Your task to perform on an android device: open app "DuckDuckGo Privacy Browser" (install if not already installed) and go to login screen Image 0: 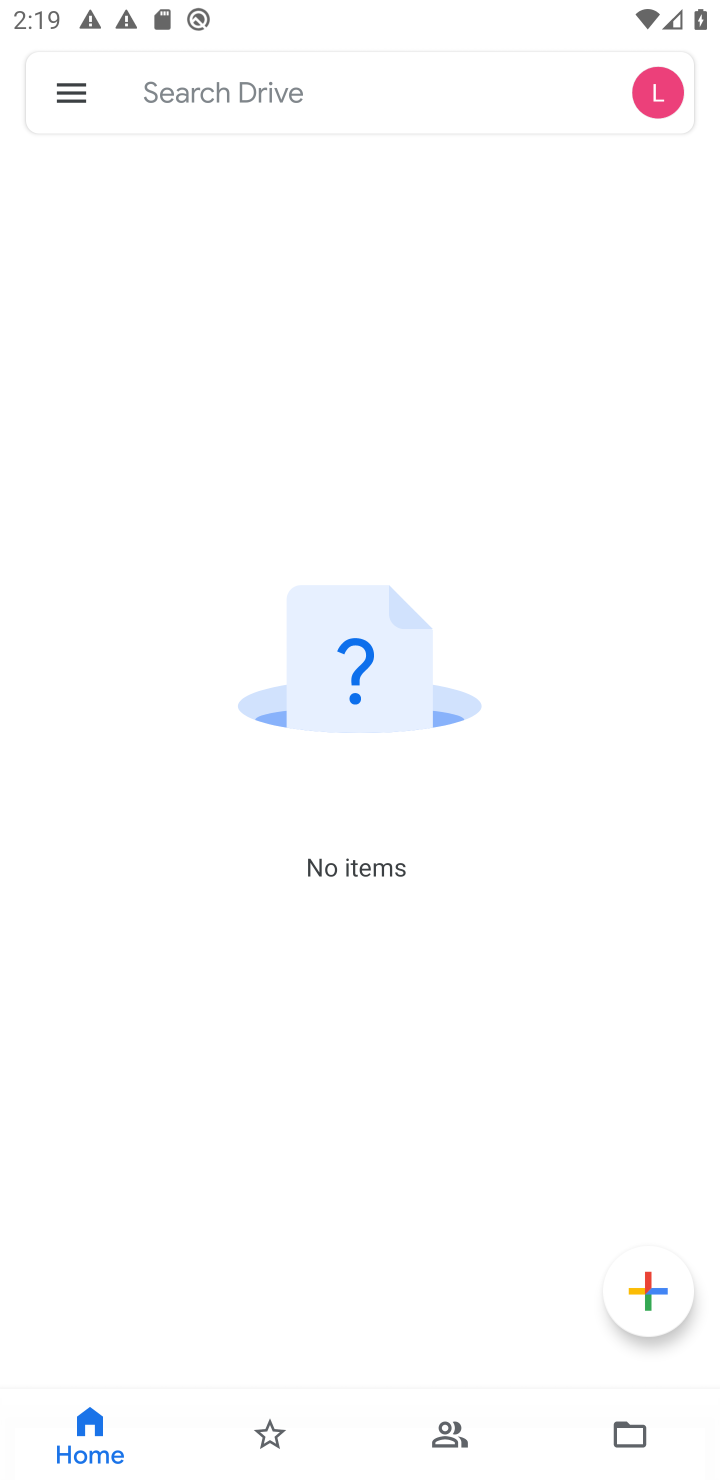
Step 0: press home button
Your task to perform on an android device: open app "DuckDuckGo Privacy Browser" (install if not already installed) and go to login screen Image 1: 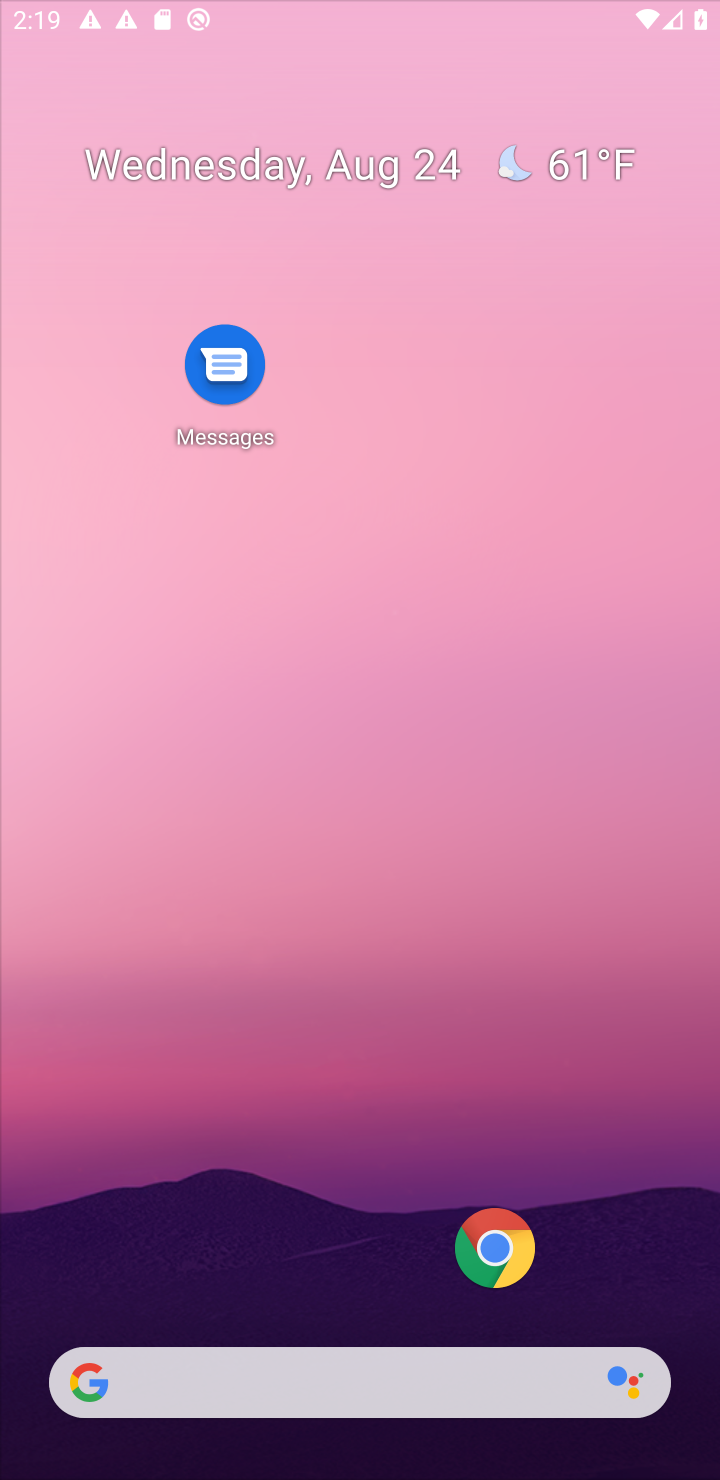
Step 1: drag from (368, 1342) to (467, 461)
Your task to perform on an android device: open app "DuckDuckGo Privacy Browser" (install if not already installed) and go to login screen Image 2: 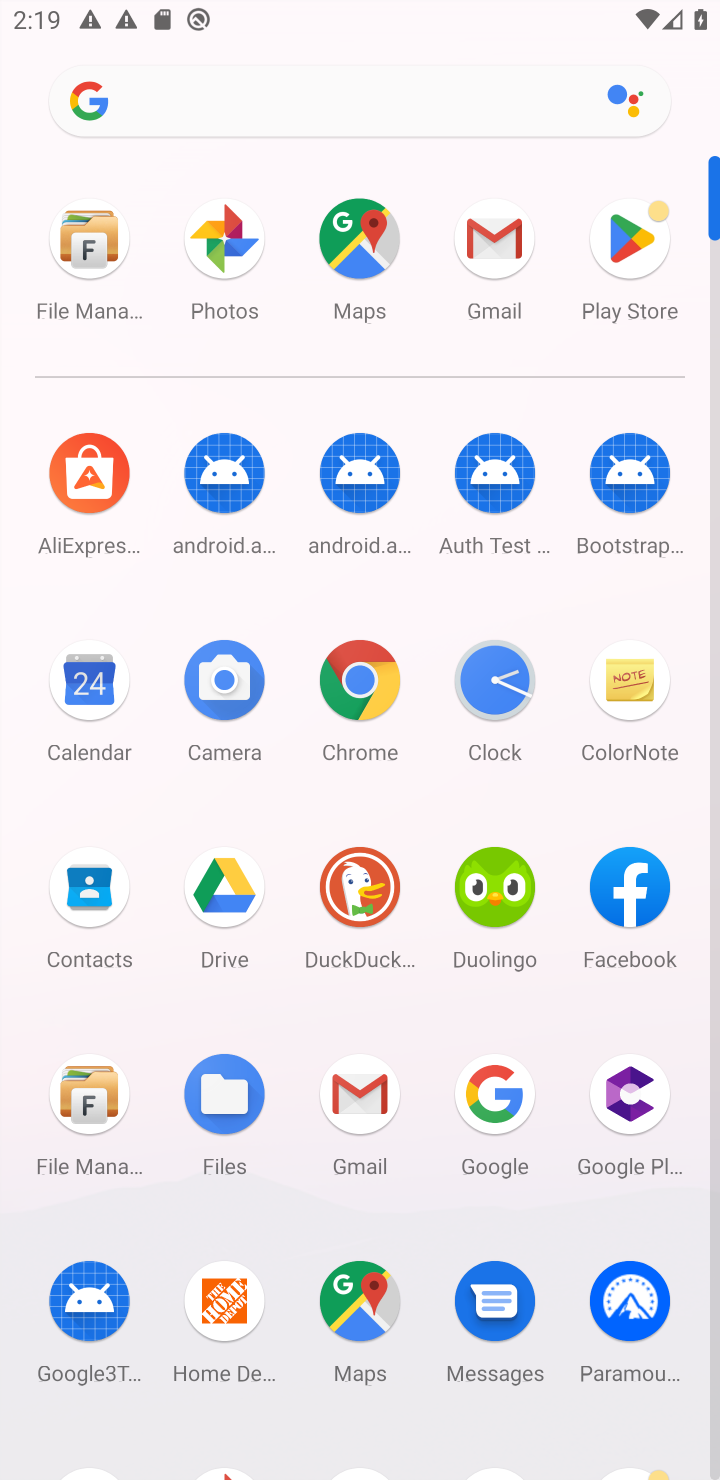
Step 2: drag from (230, 1375) to (249, 1254)
Your task to perform on an android device: open app "DuckDuckGo Privacy Browser" (install if not already installed) and go to login screen Image 3: 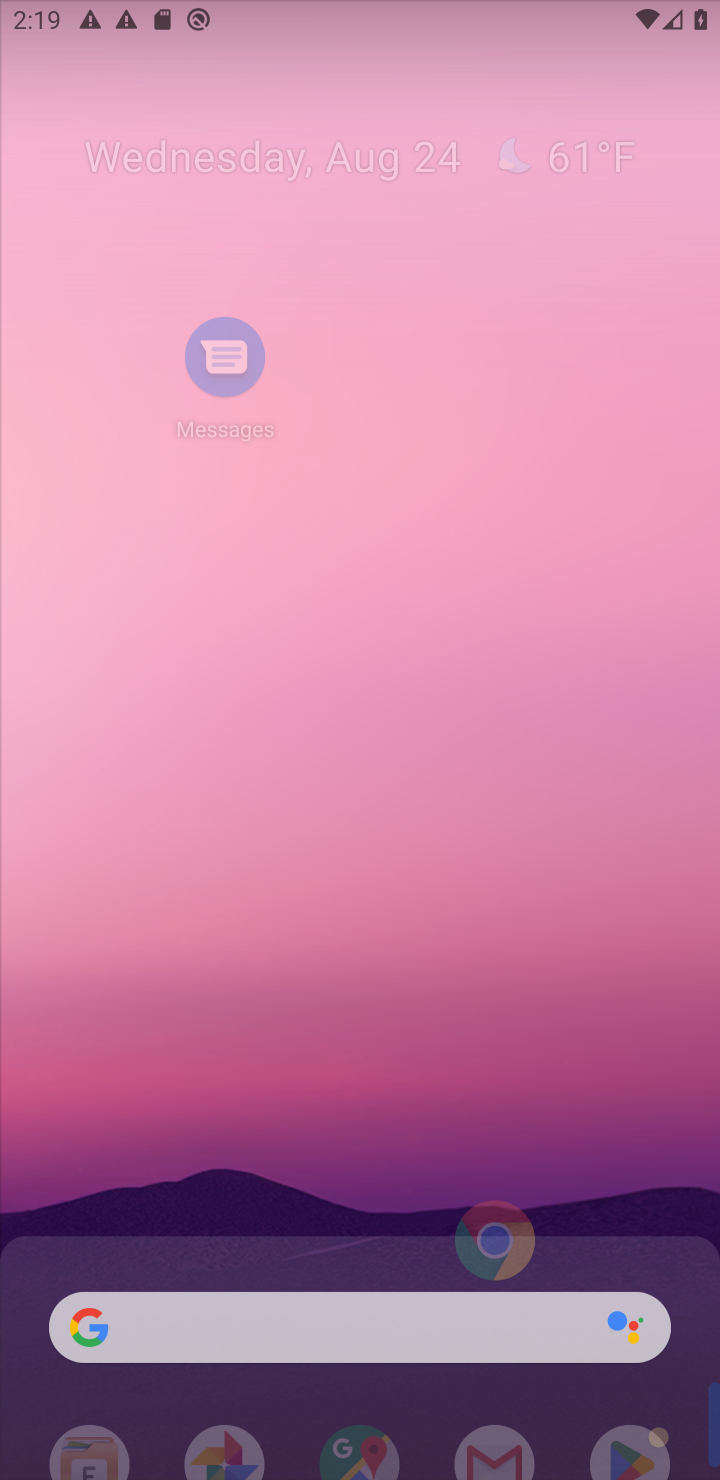
Step 3: click (638, 215)
Your task to perform on an android device: open app "DuckDuckGo Privacy Browser" (install if not already installed) and go to login screen Image 4: 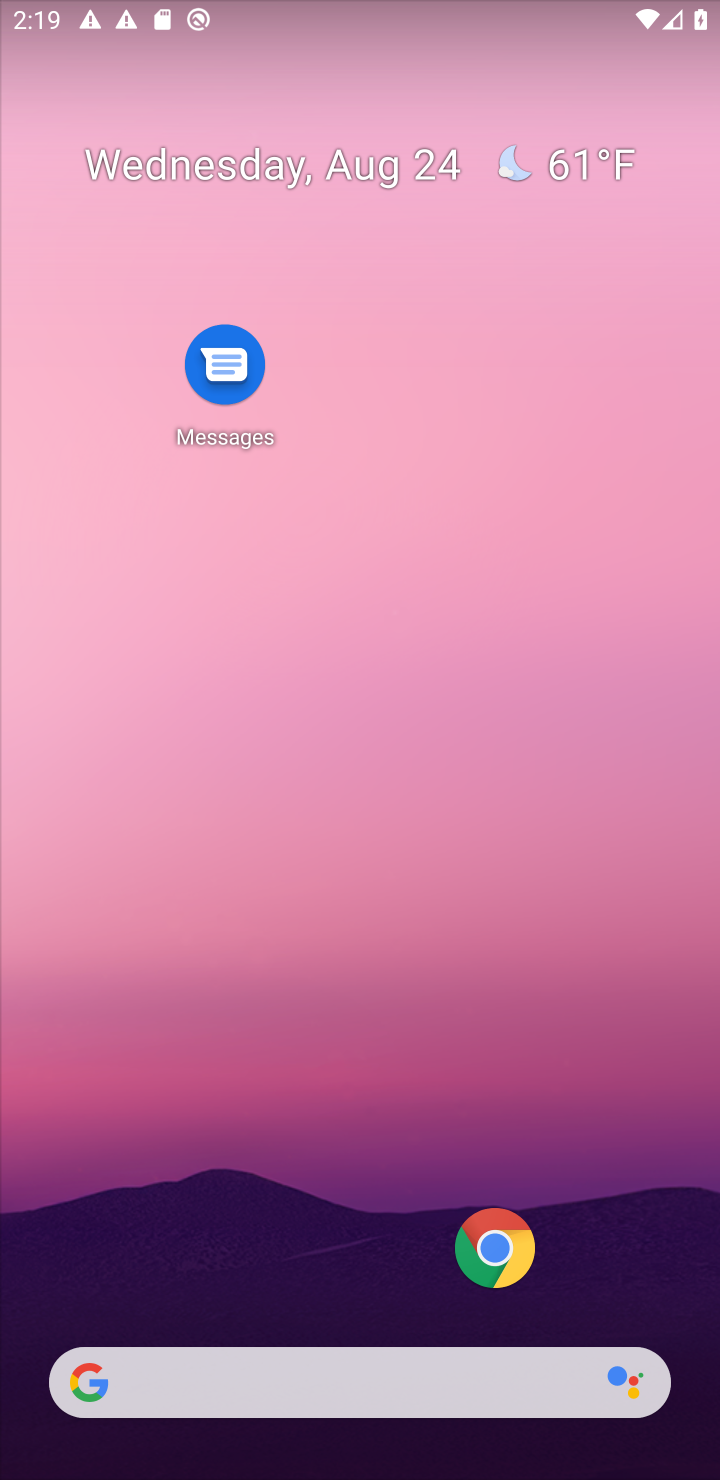
Step 4: drag from (335, 1182) to (368, 694)
Your task to perform on an android device: open app "DuckDuckGo Privacy Browser" (install if not already installed) and go to login screen Image 5: 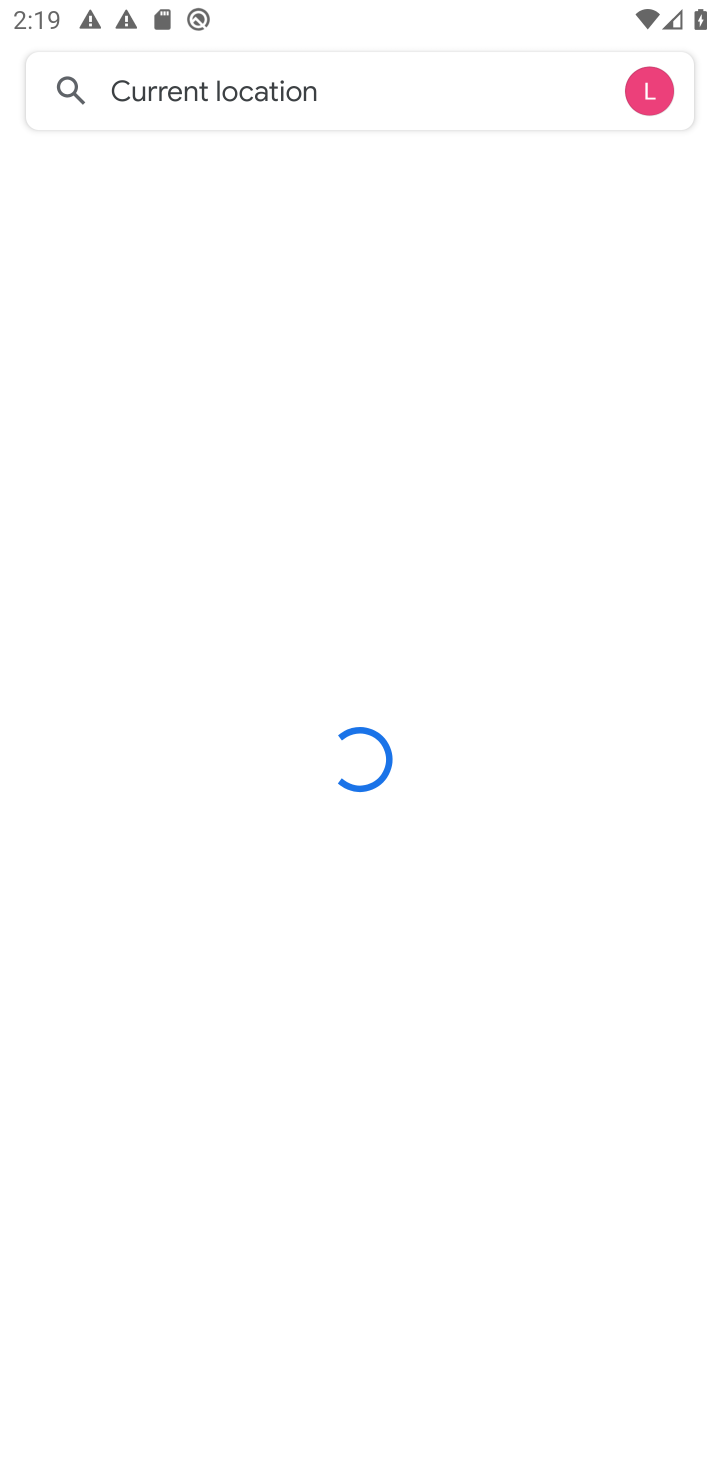
Step 5: press home button
Your task to perform on an android device: open app "DuckDuckGo Privacy Browser" (install if not already installed) and go to login screen Image 6: 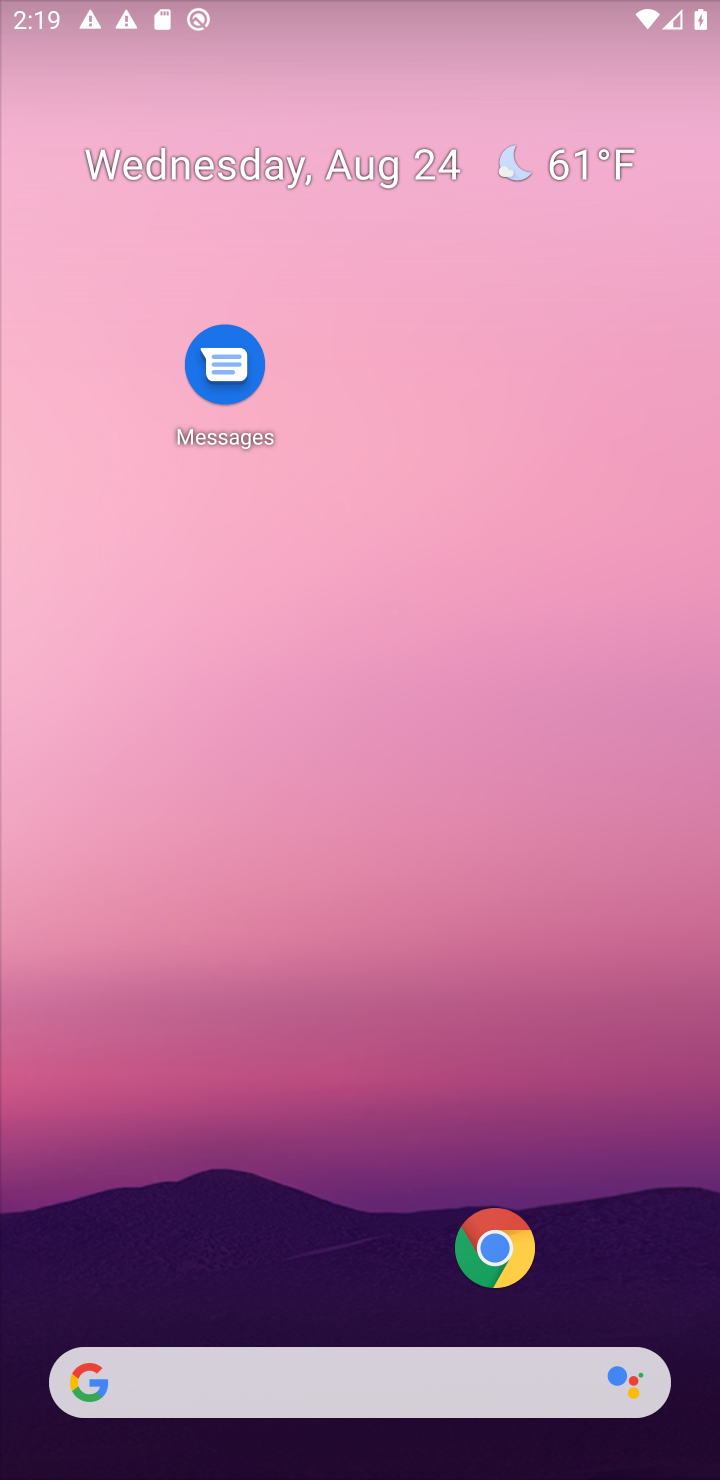
Step 6: press home button
Your task to perform on an android device: open app "DuckDuckGo Privacy Browser" (install if not already installed) and go to login screen Image 7: 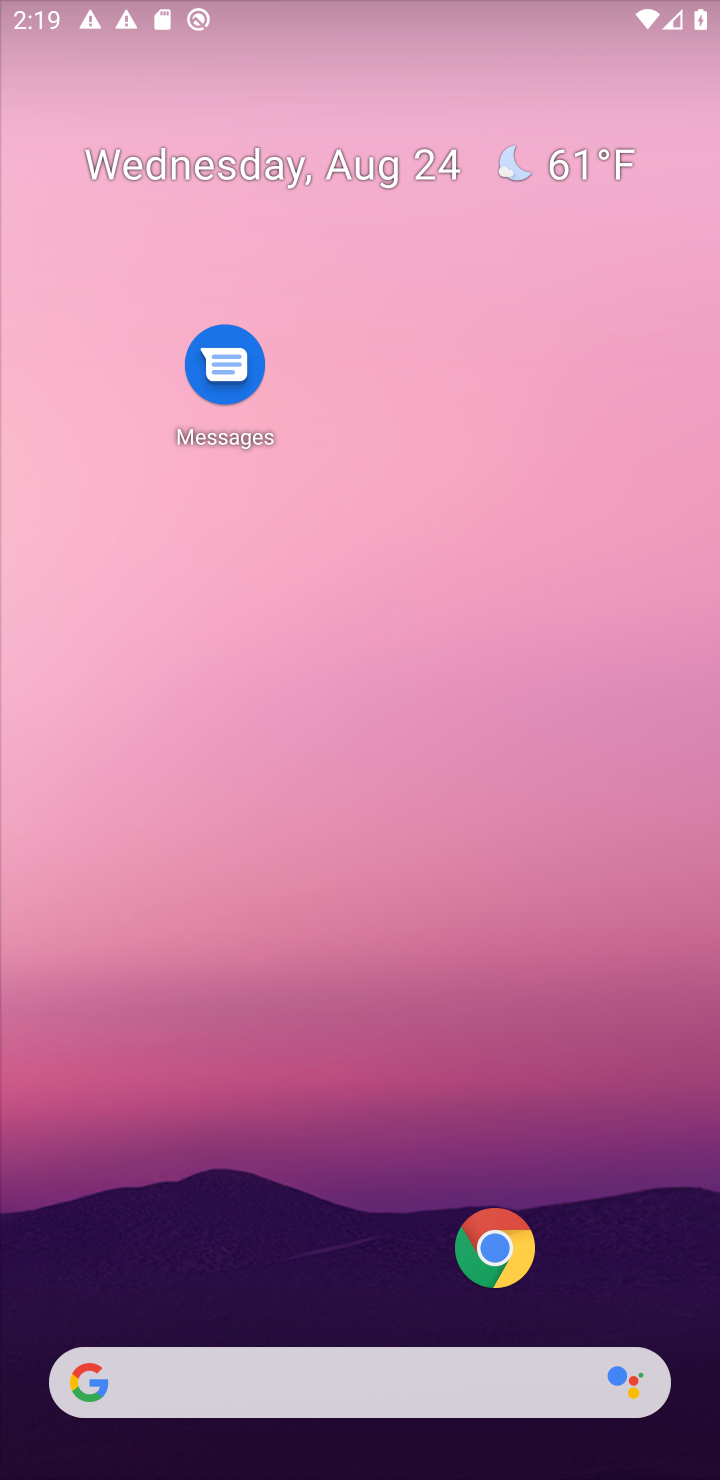
Step 7: click (309, 252)
Your task to perform on an android device: open app "DuckDuckGo Privacy Browser" (install if not already installed) and go to login screen Image 8: 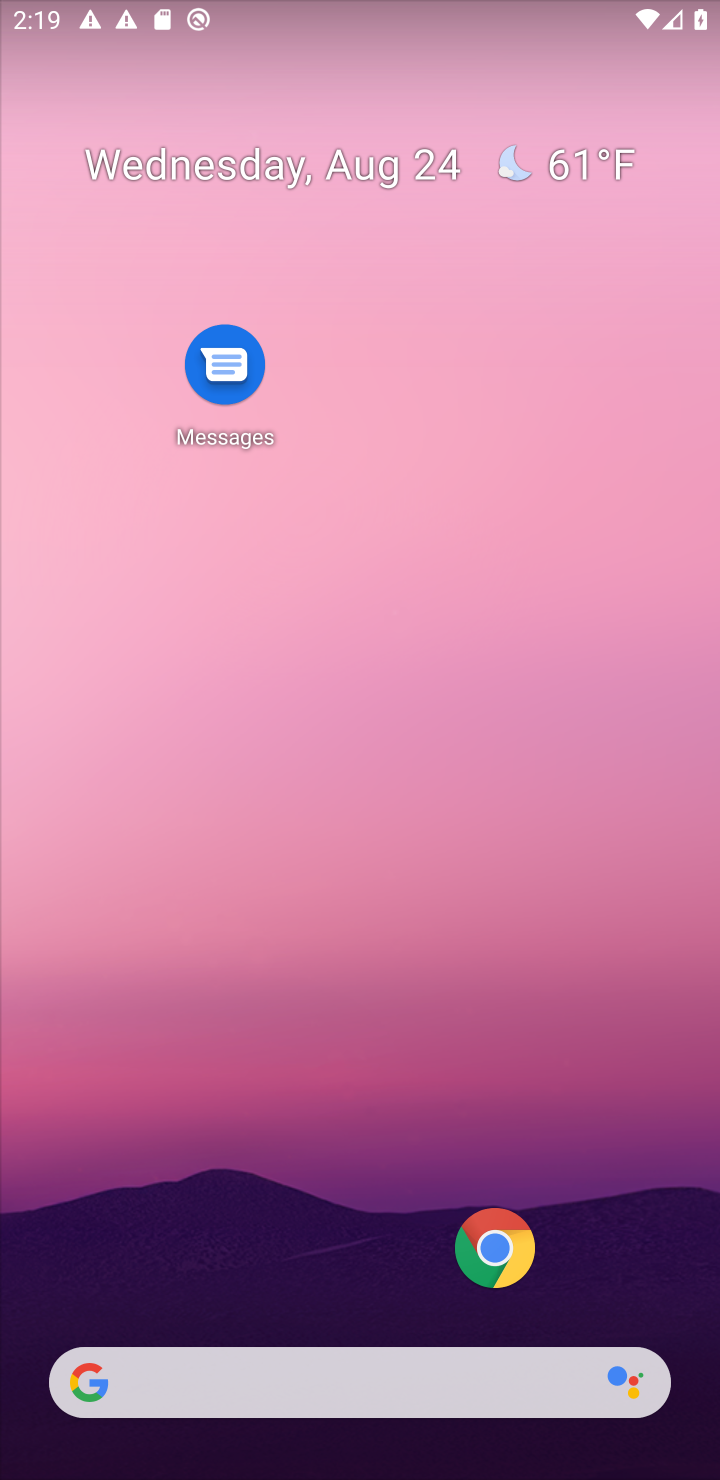
Step 8: drag from (423, 1077) to (443, 255)
Your task to perform on an android device: open app "DuckDuckGo Privacy Browser" (install if not already installed) and go to login screen Image 9: 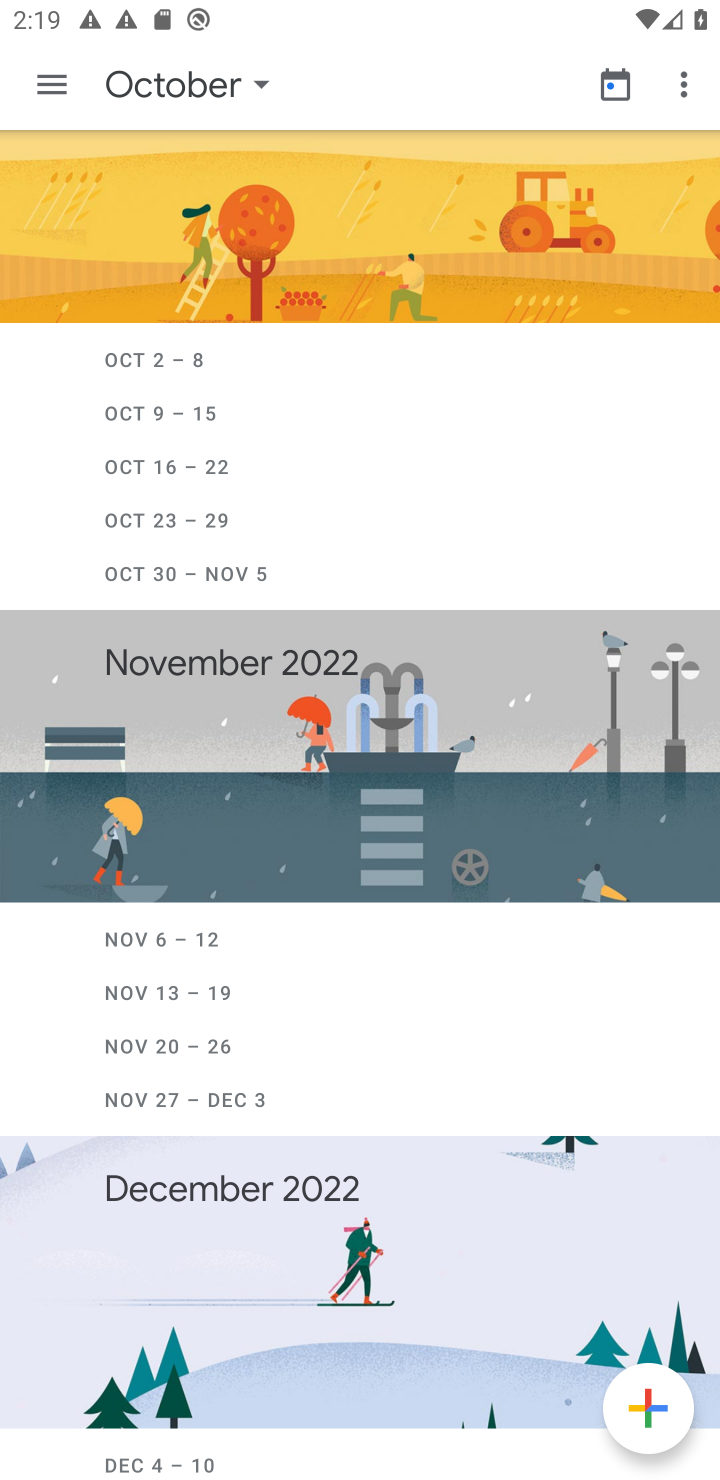
Step 9: press home button
Your task to perform on an android device: open app "DuckDuckGo Privacy Browser" (install if not already installed) and go to login screen Image 10: 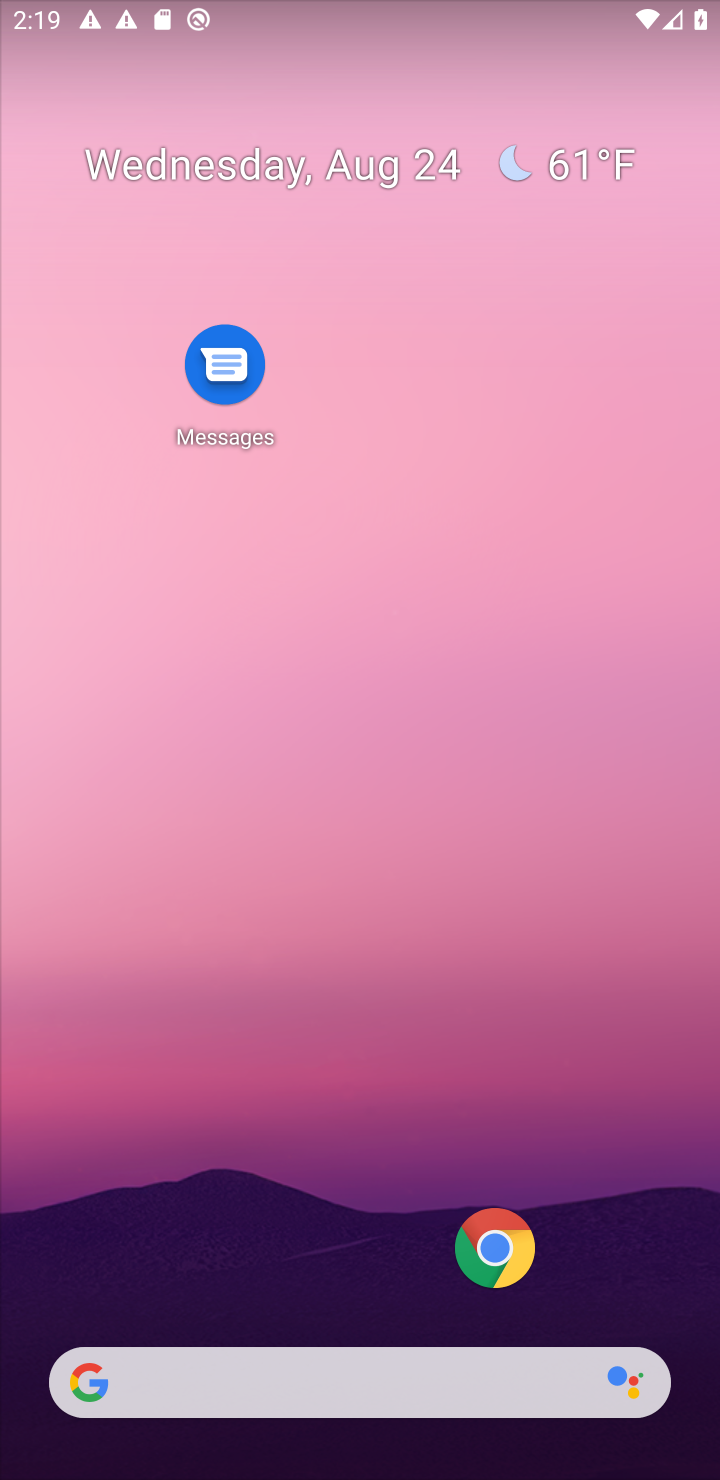
Step 10: drag from (229, 1291) to (245, 385)
Your task to perform on an android device: open app "DuckDuckGo Privacy Browser" (install if not already installed) and go to login screen Image 11: 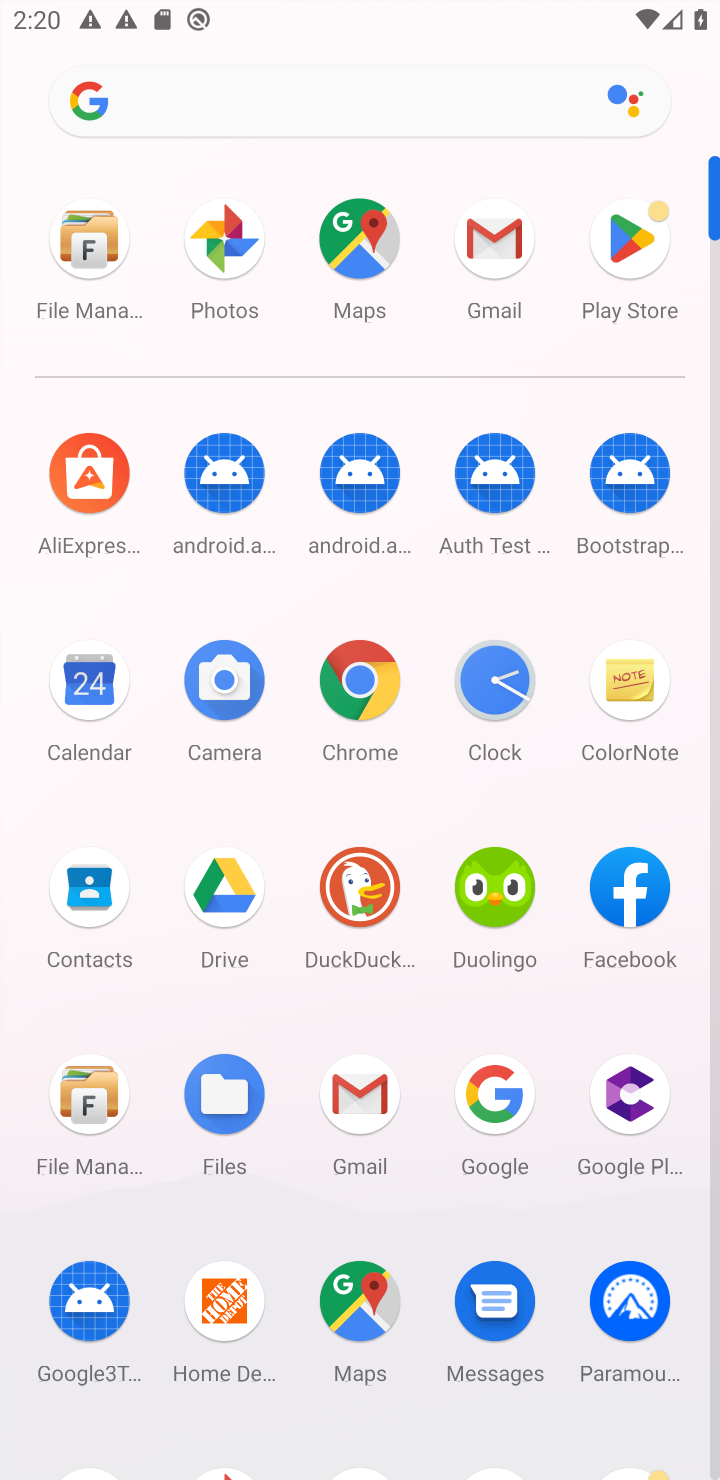
Step 11: click (617, 230)
Your task to perform on an android device: open app "DuckDuckGo Privacy Browser" (install if not already installed) and go to login screen Image 12: 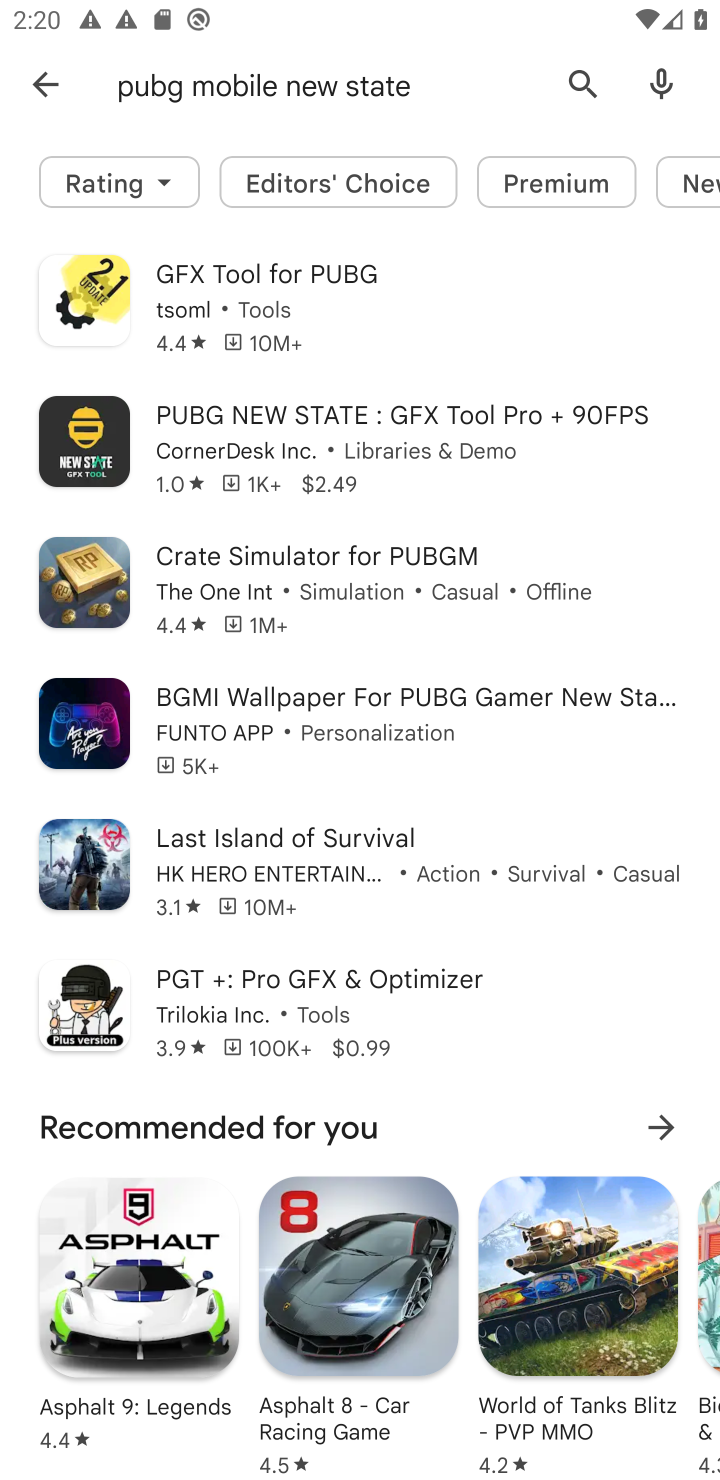
Step 12: click (54, 93)
Your task to perform on an android device: open app "DuckDuckGo Privacy Browser" (install if not already installed) and go to login screen Image 13: 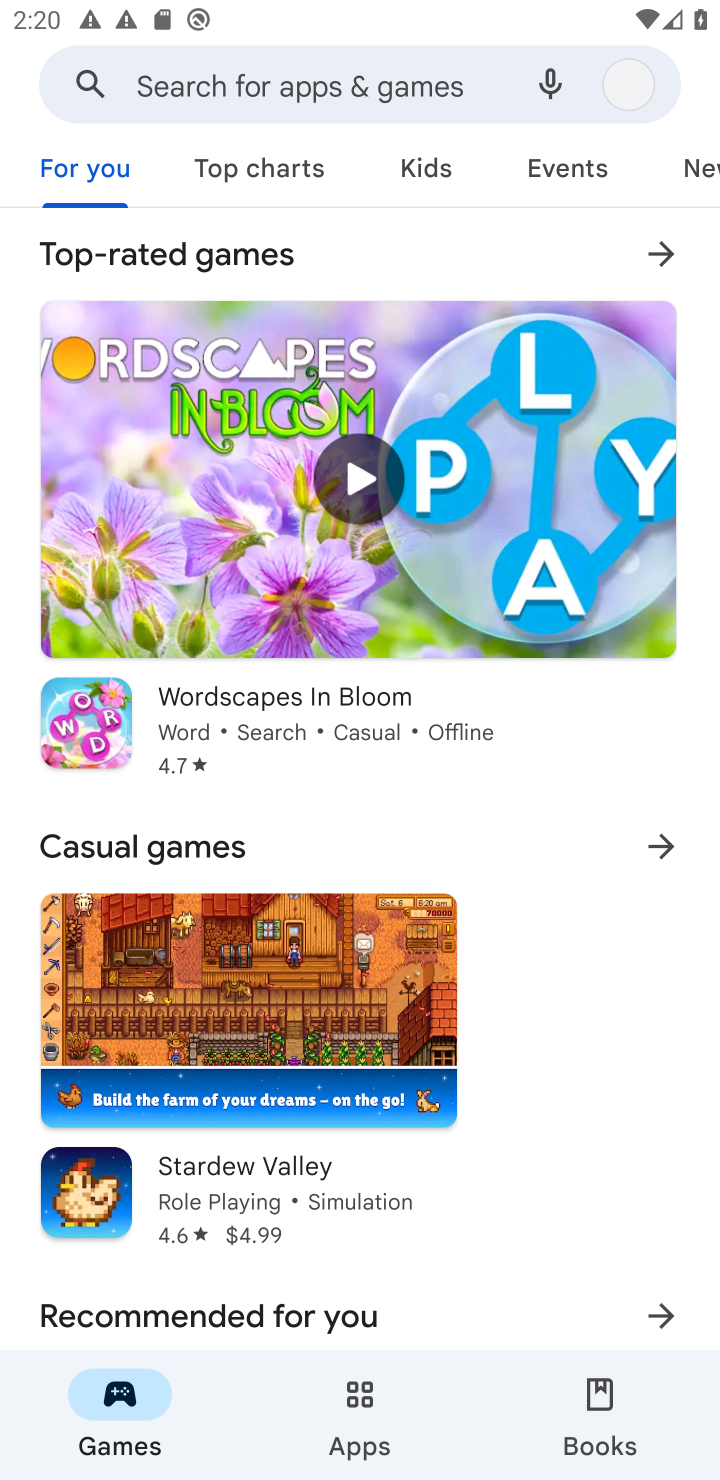
Step 13: click (569, 61)
Your task to perform on an android device: open app "DuckDuckGo Privacy Browser" (install if not already installed) and go to login screen Image 14: 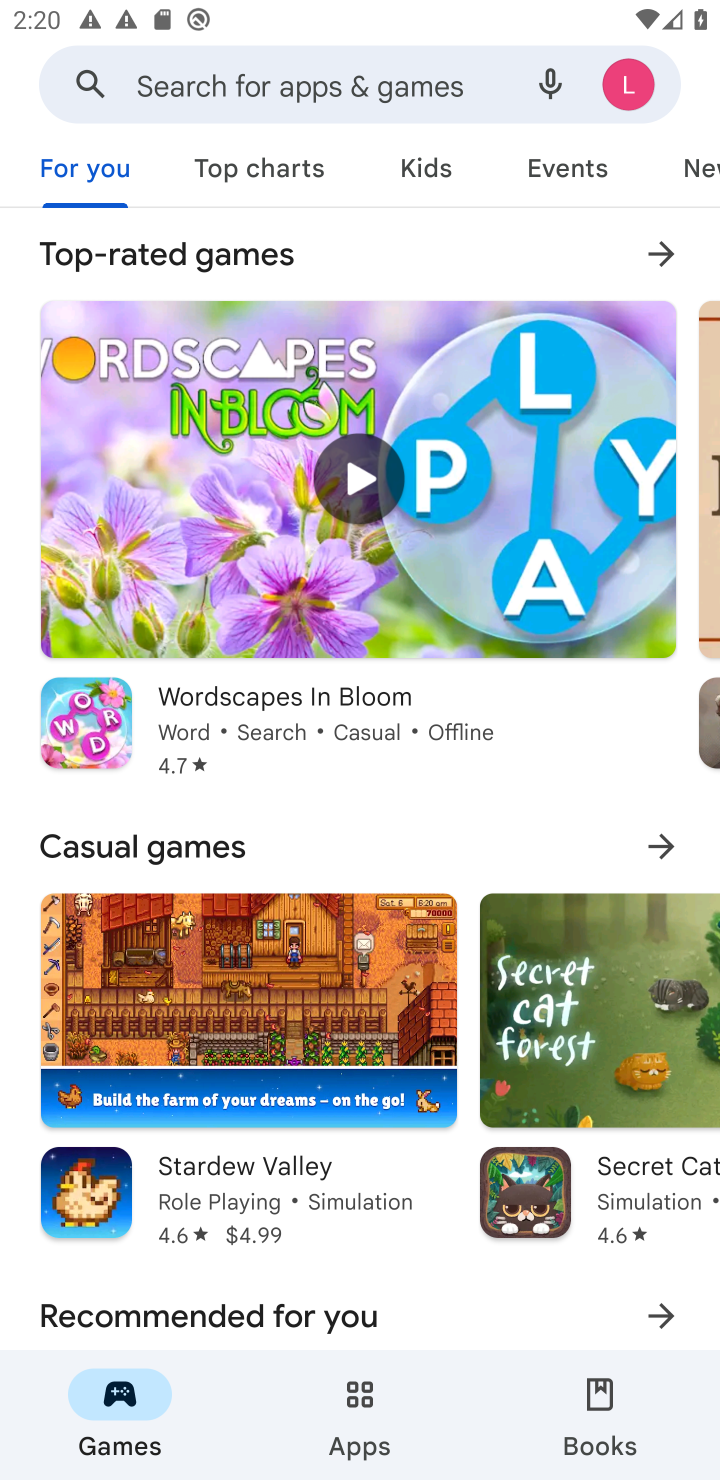
Step 14: click (231, 80)
Your task to perform on an android device: open app "DuckDuckGo Privacy Browser" (install if not already installed) and go to login screen Image 15: 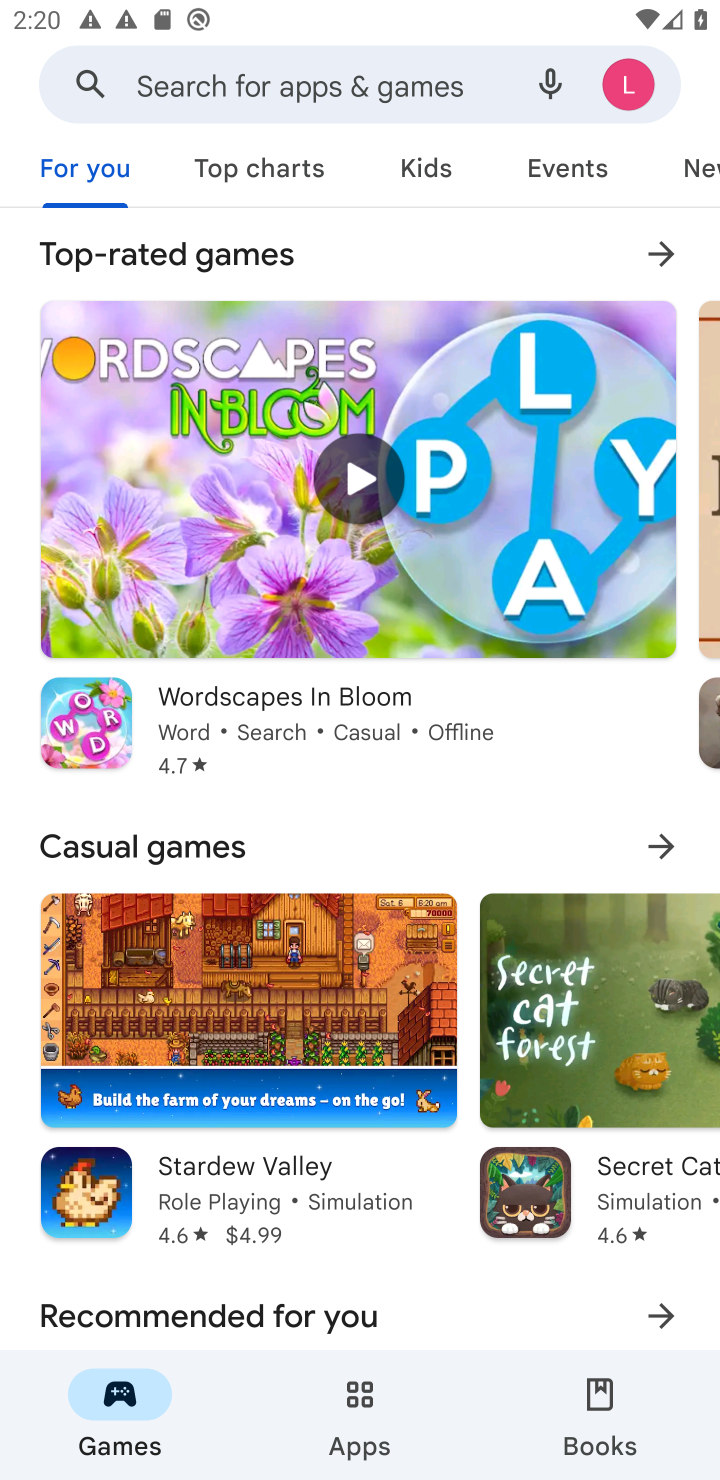
Step 15: click (244, 73)
Your task to perform on an android device: open app "DuckDuckGo Privacy Browser" (install if not already installed) and go to login screen Image 16: 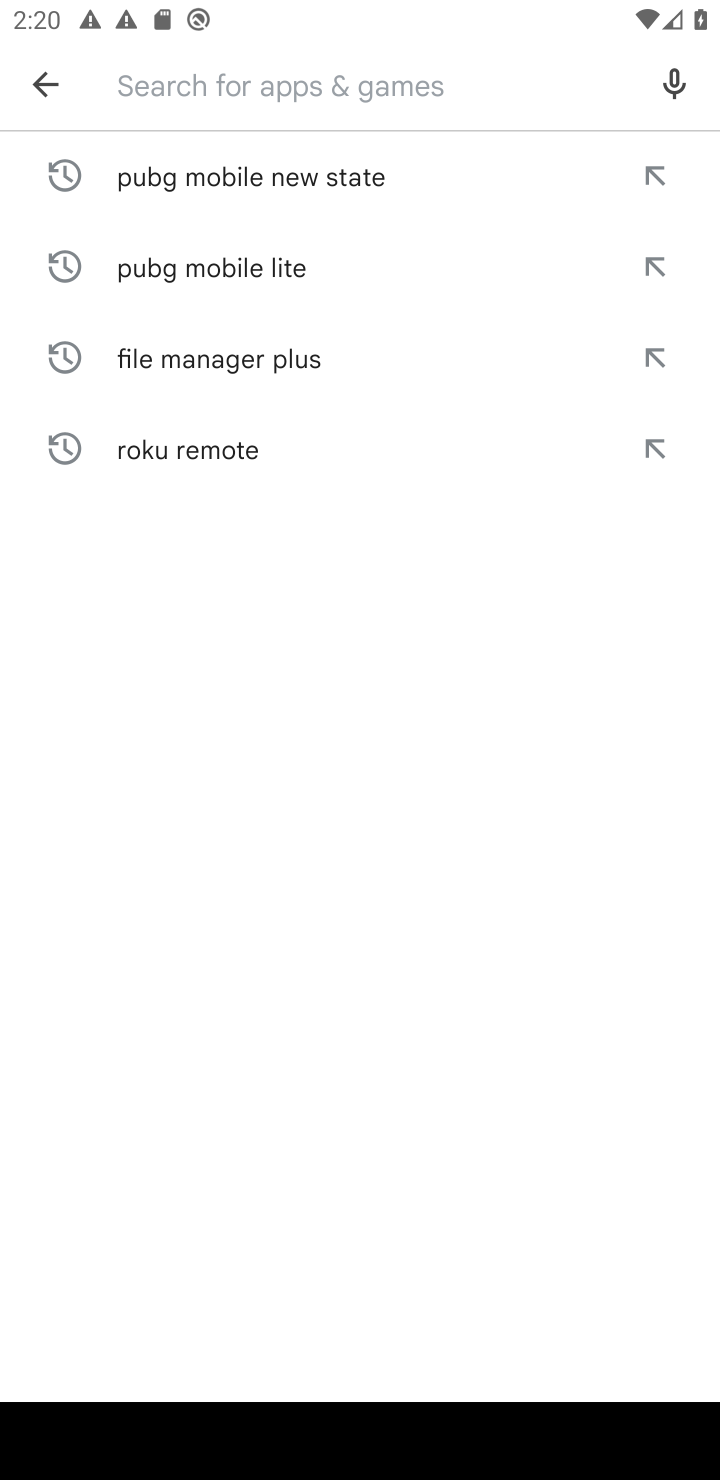
Step 16: type "DuckDuckGo Privacy Browser "
Your task to perform on an android device: open app "DuckDuckGo Privacy Browser" (install if not already installed) and go to login screen Image 17: 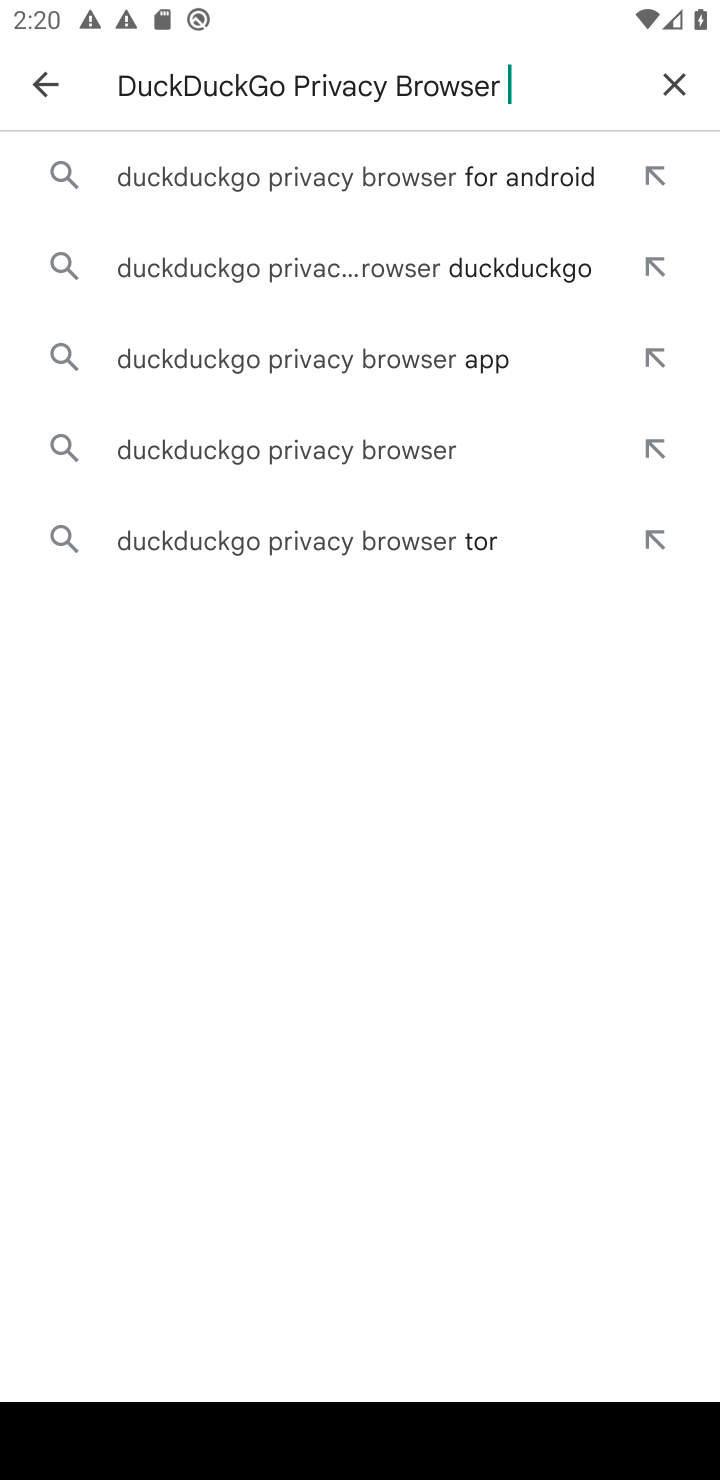
Step 17: click (274, 166)
Your task to perform on an android device: open app "DuckDuckGo Privacy Browser" (install if not already installed) and go to login screen Image 18: 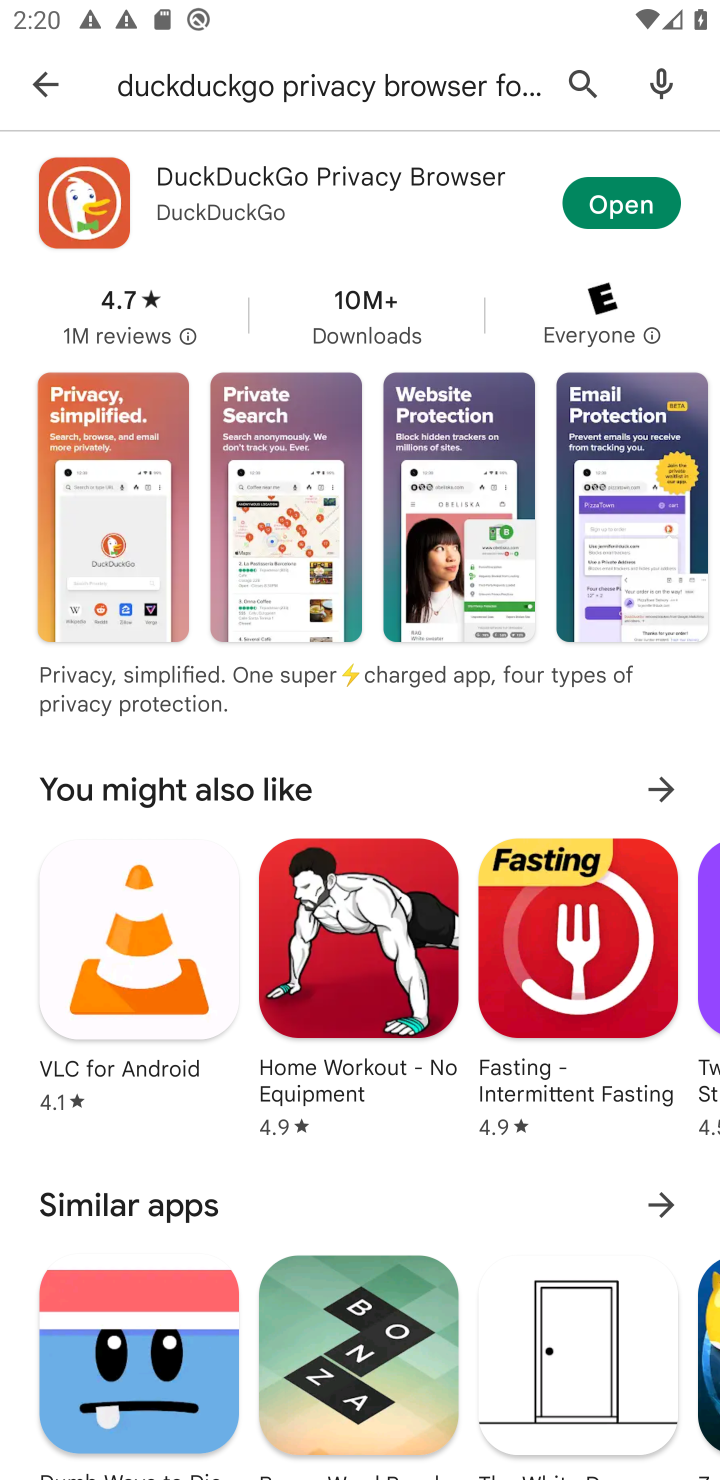
Step 18: click (355, 213)
Your task to perform on an android device: open app "DuckDuckGo Privacy Browser" (install if not already installed) and go to login screen Image 19: 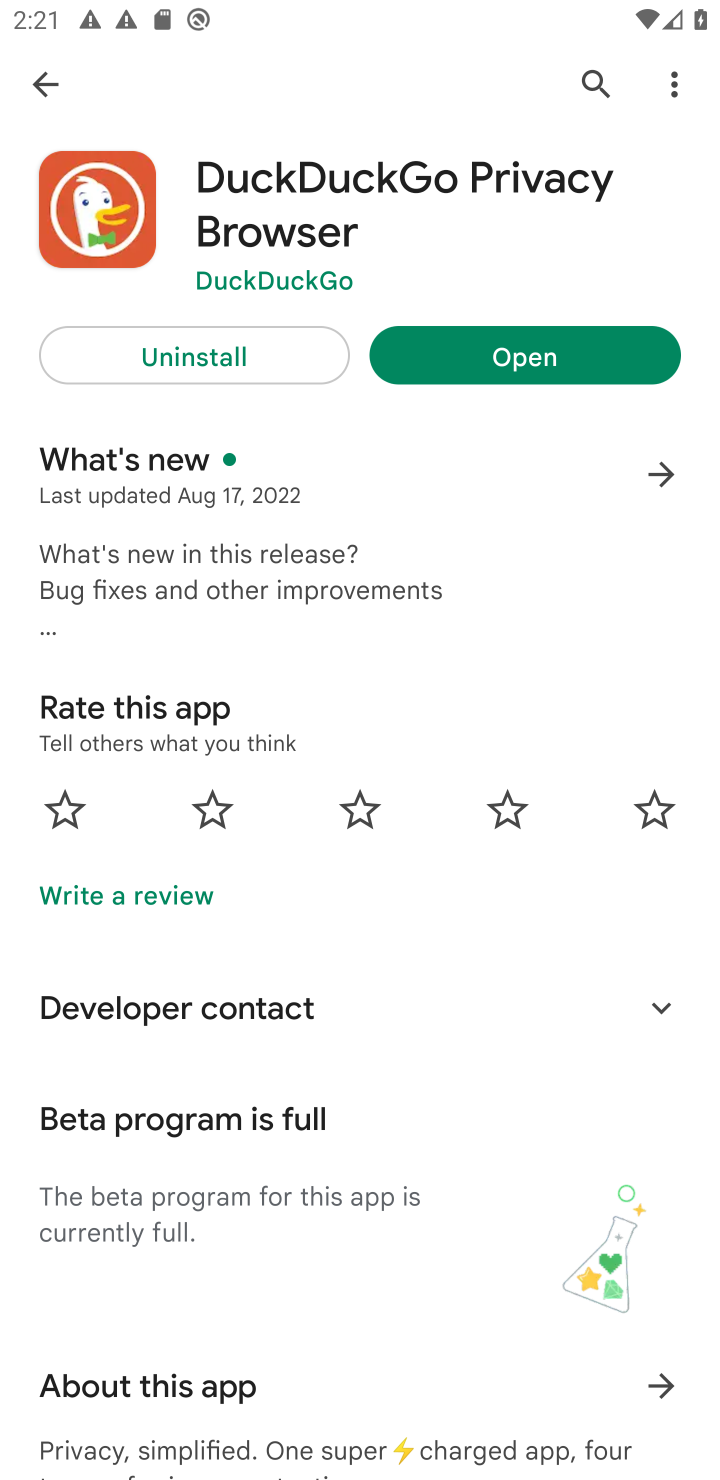
Step 19: task complete